Your task to perform on an android device: open app "Etsy: Buy & Sell Unique Items" (install if not already installed) Image 0: 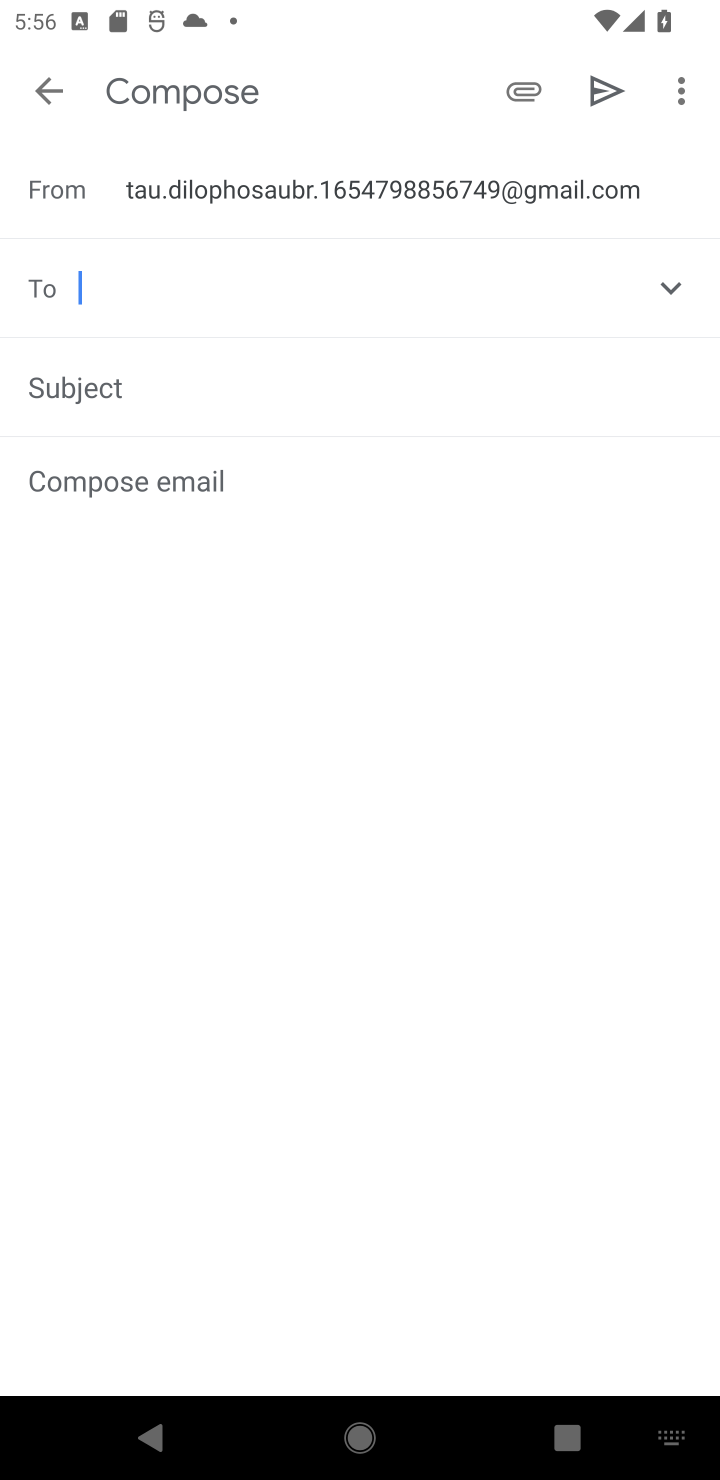
Step 0: press home button
Your task to perform on an android device: open app "Etsy: Buy & Sell Unique Items" (install if not already installed) Image 1: 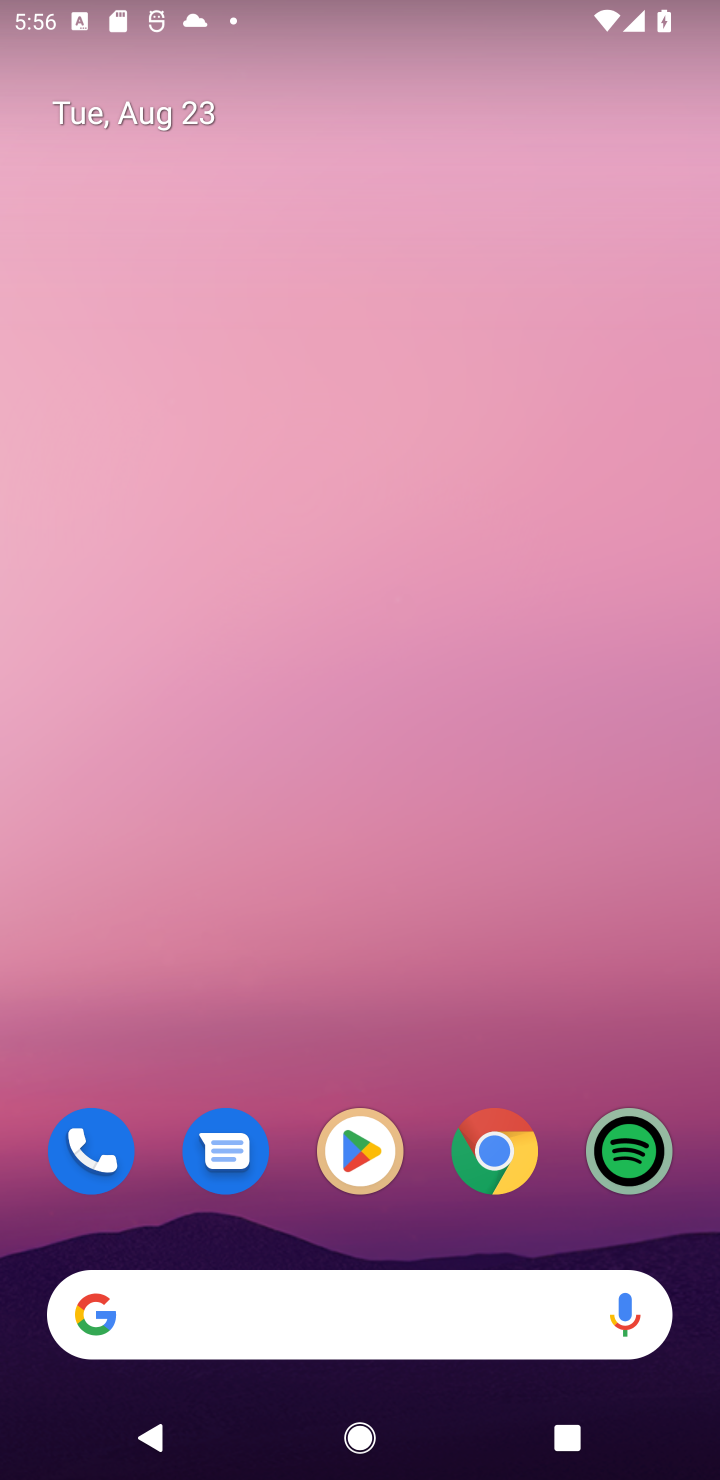
Step 1: click (366, 1153)
Your task to perform on an android device: open app "Etsy: Buy & Sell Unique Items" (install if not already installed) Image 2: 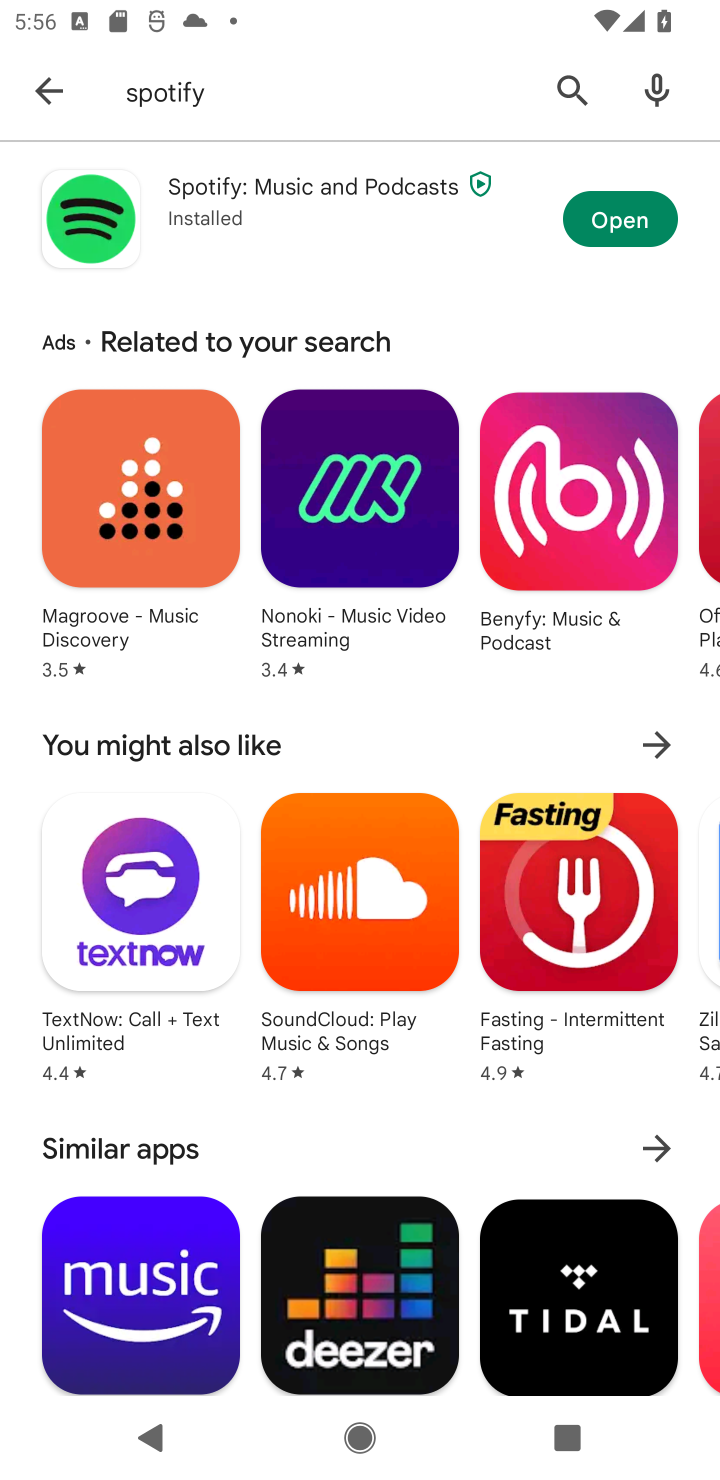
Step 2: click (565, 86)
Your task to perform on an android device: open app "Etsy: Buy & Sell Unique Items" (install if not already installed) Image 3: 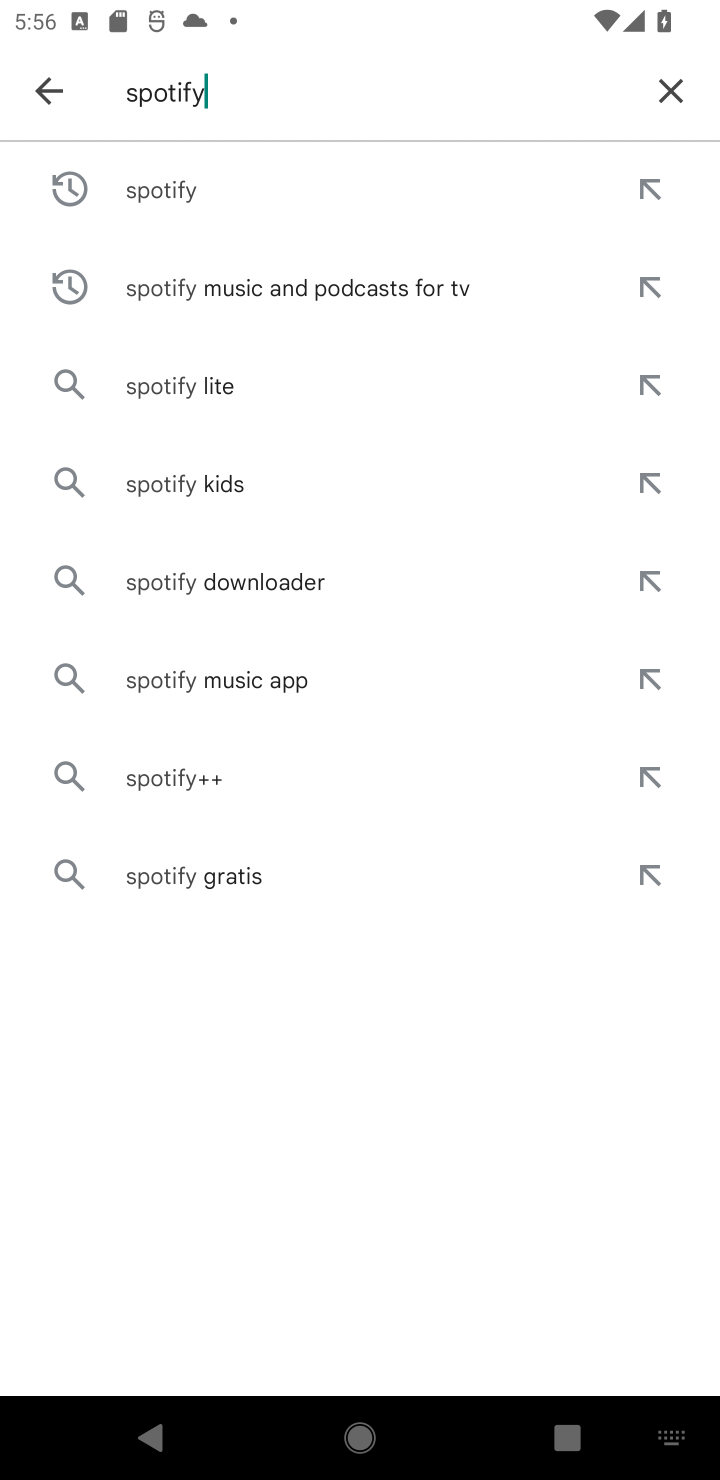
Step 3: click (667, 81)
Your task to perform on an android device: open app "Etsy: Buy & Sell Unique Items" (install if not already installed) Image 4: 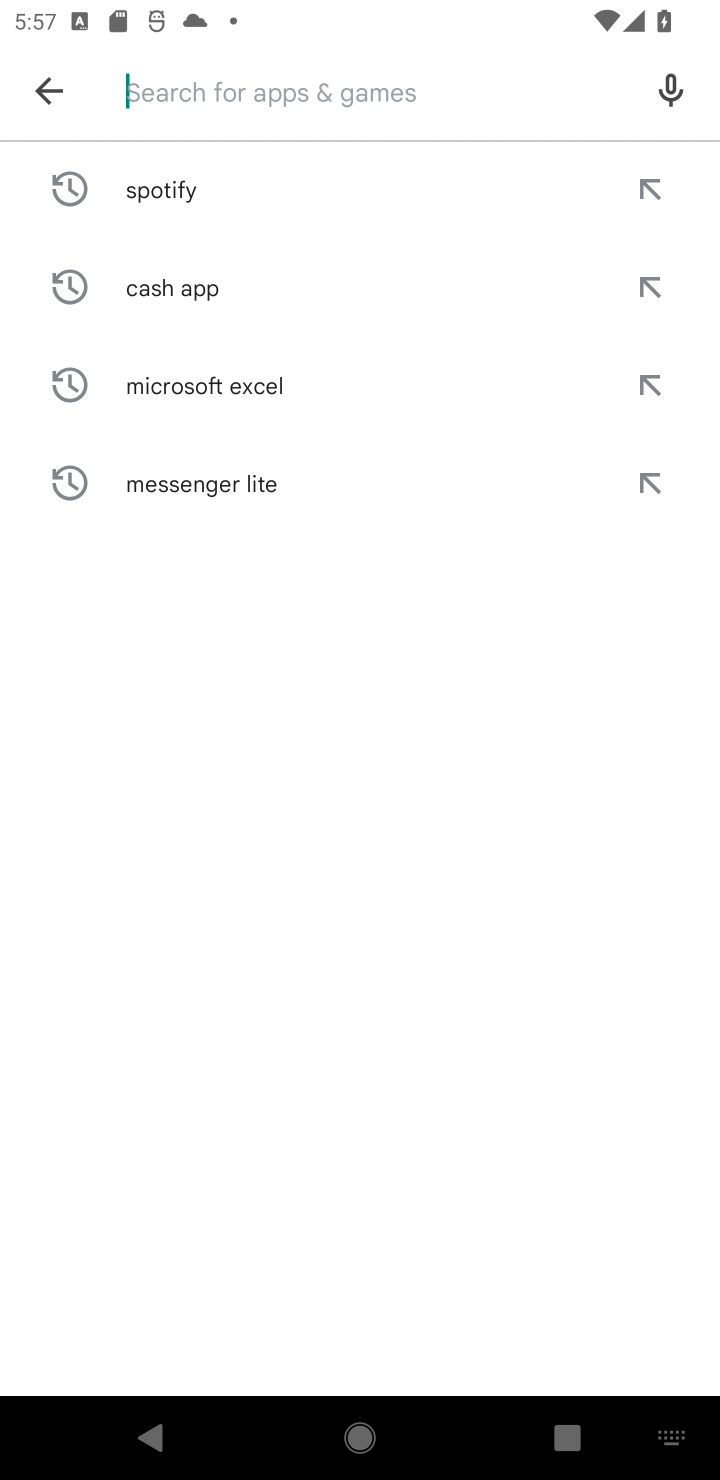
Step 4: type "Etsy: Buy & Sell Unique Items"
Your task to perform on an android device: open app "Etsy: Buy & Sell Unique Items" (install if not already installed) Image 5: 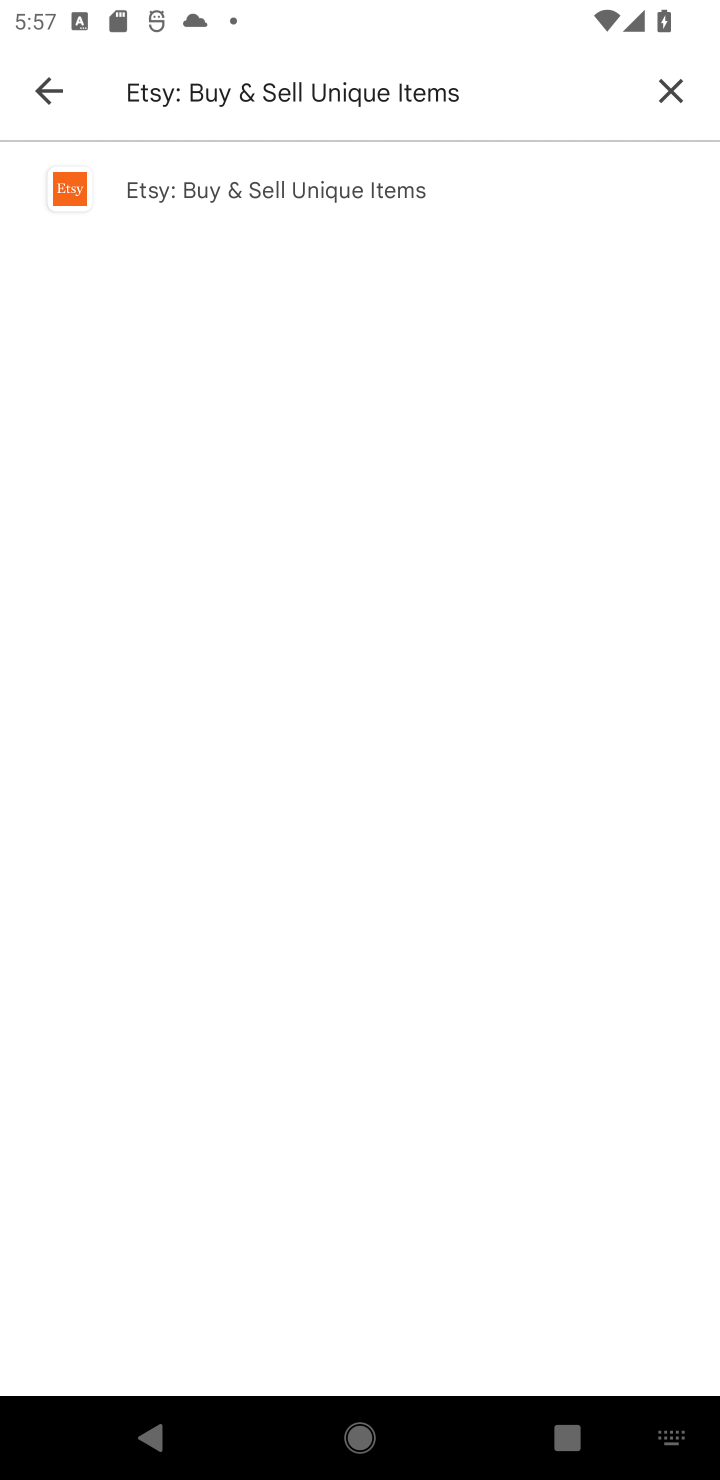
Step 5: click (363, 185)
Your task to perform on an android device: open app "Etsy: Buy & Sell Unique Items" (install if not already installed) Image 6: 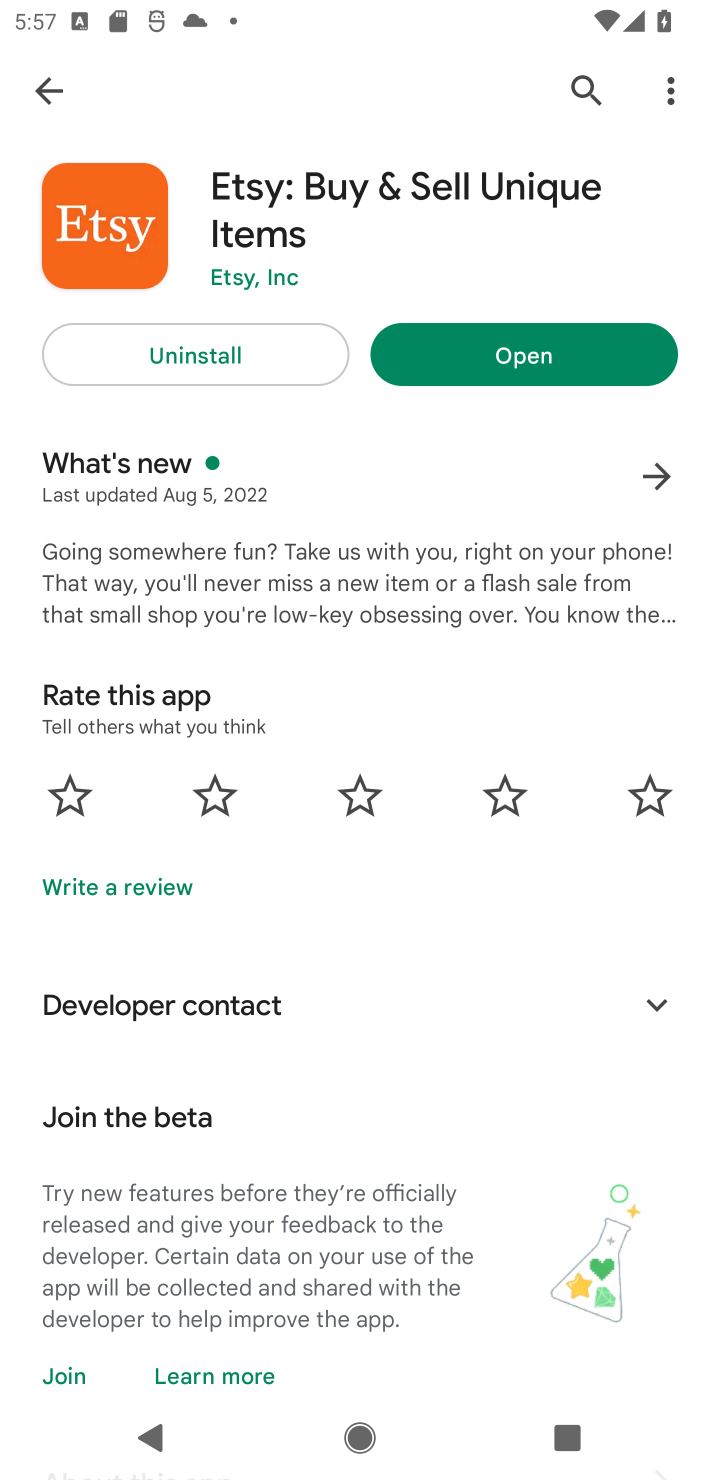
Step 6: click (564, 359)
Your task to perform on an android device: open app "Etsy: Buy & Sell Unique Items" (install if not already installed) Image 7: 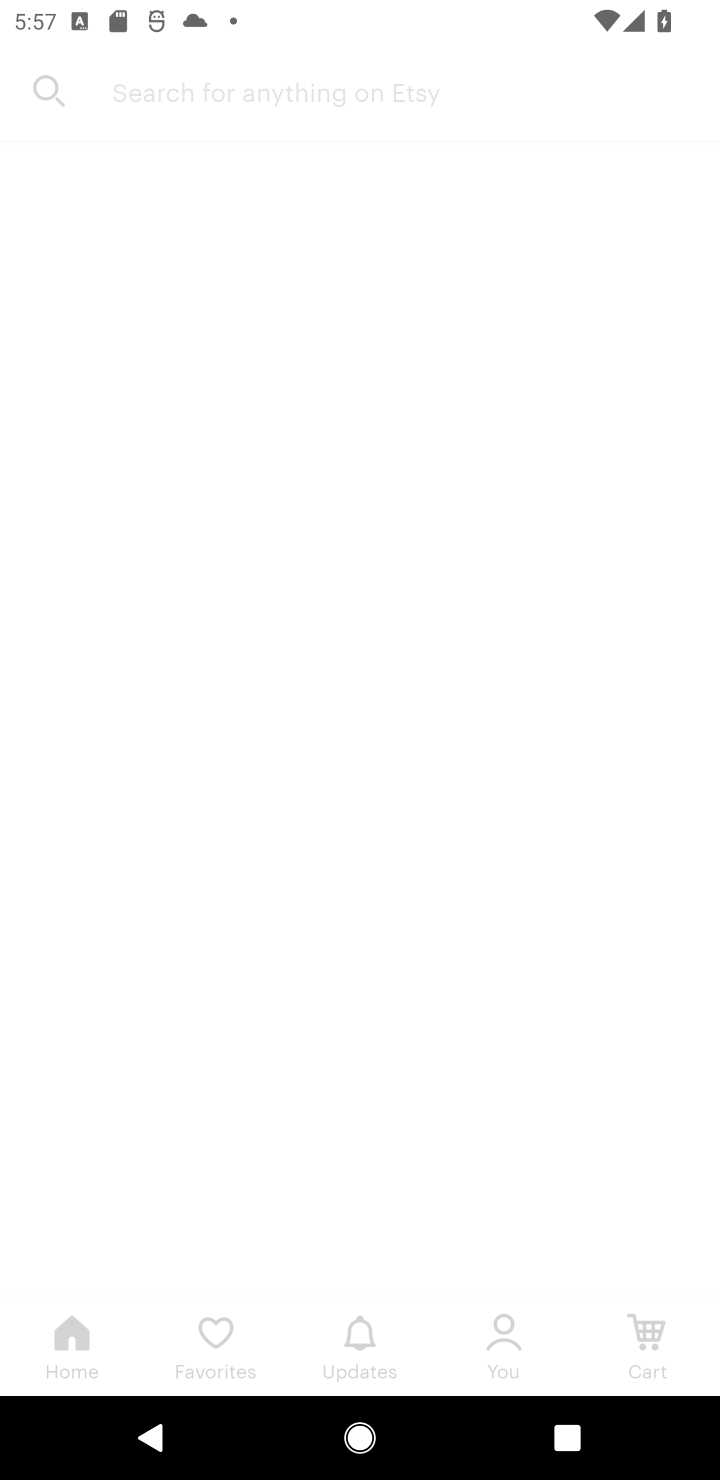
Step 7: task complete